Your task to perform on an android device: Search for Italian restaurants on Maps Image 0: 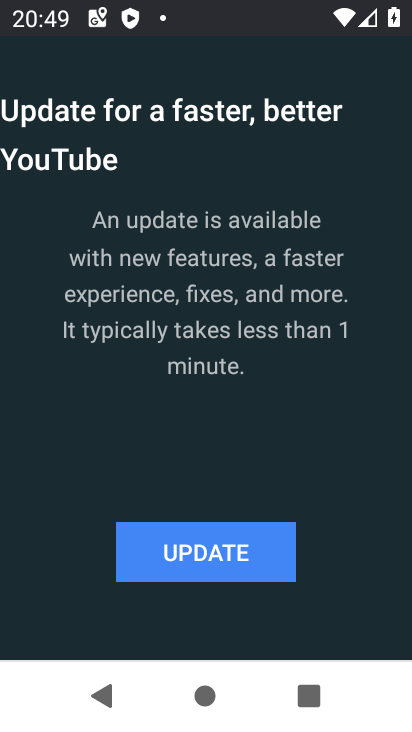
Step 0: press home button
Your task to perform on an android device: Search for Italian restaurants on Maps Image 1: 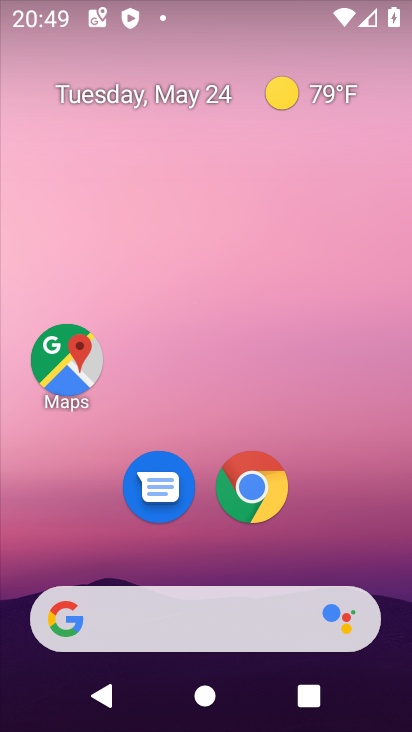
Step 1: click (64, 368)
Your task to perform on an android device: Search for Italian restaurants on Maps Image 2: 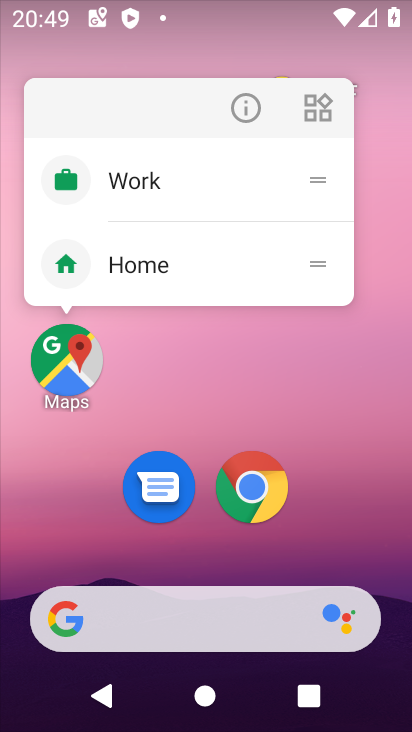
Step 2: click (64, 368)
Your task to perform on an android device: Search for Italian restaurants on Maps Image 3: 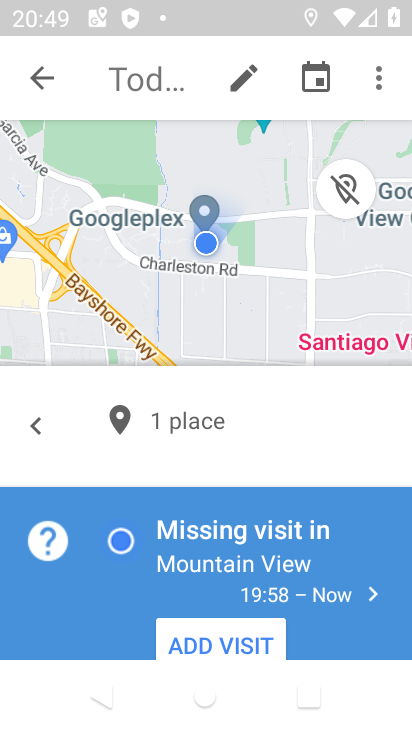
Step 3: click (43, 89)
Your task to perform on an android device: Search for Italian restaurants on Maps Image 4: 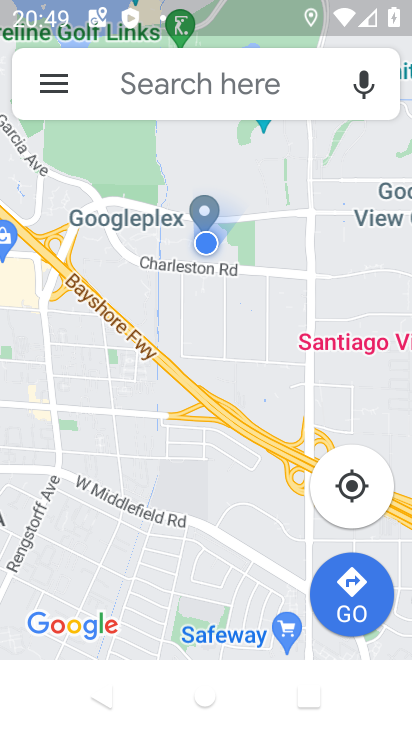
Step 4: click (164, 99)
Your task to perform on an android device: Search for Italian restaurants on Maps Image 5: 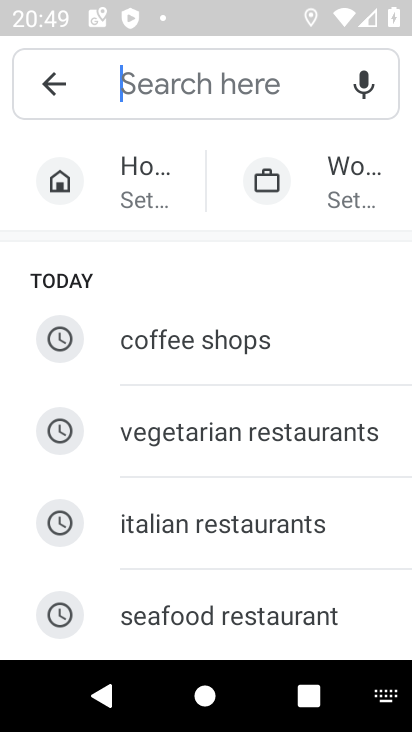
Step 5: type " Italian restaurants "
Your task to perform on an android device: Search for Italian restaurants on Maps Image 6: 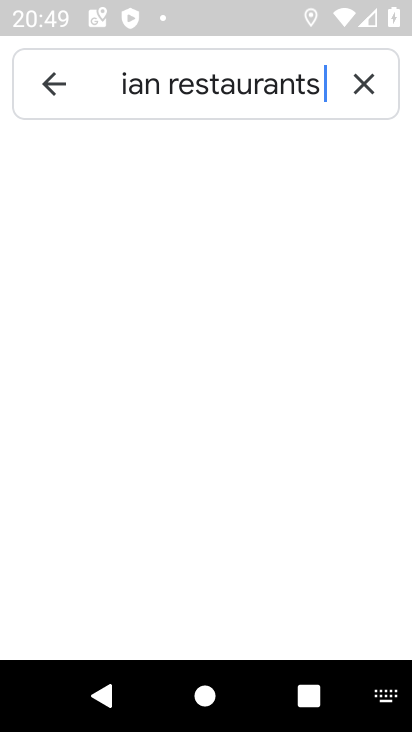
Step 6: type ""
Your task to perform on an android device: Search for Italian restaurants on Maps Image 7: 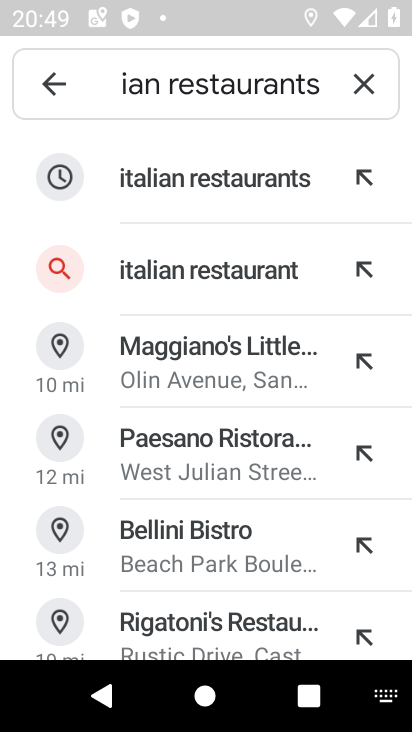
Step 7: click (175, 193)
Your task to perform on an android device: Search for Italian restaurants on Maps Image 8: 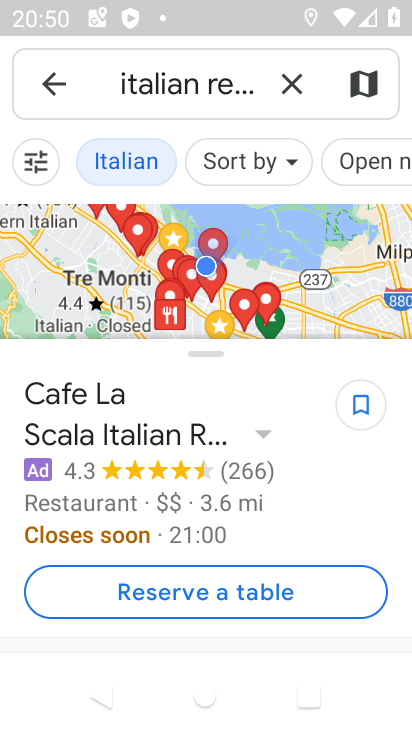
Step 8: task complete